Your task to perform on an android device: Open display settings Image 0: 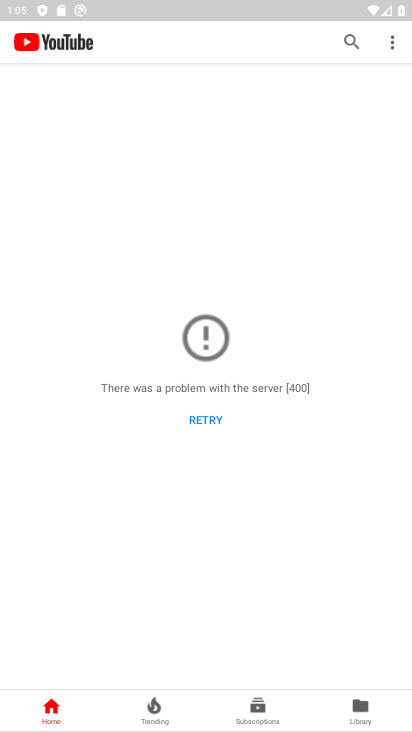
Step 0: press home button
Your task to perform on an android device: Open display settings Image 1: 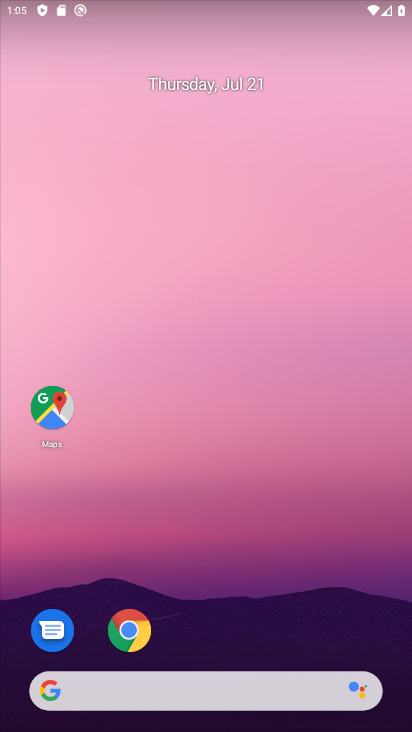
Step 1: drag from (292, 634) to (243, 258)
Your task to perform on an android device: Open display settings Image 2: 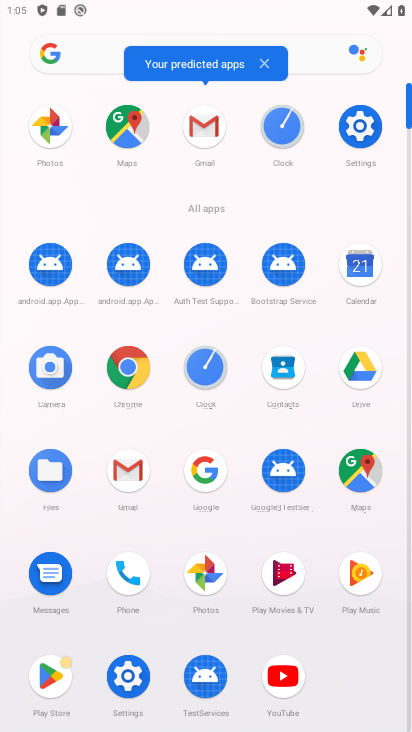
Step 2: click (356, 138)
Your task to perform on an android device: Open display settings Image 3: 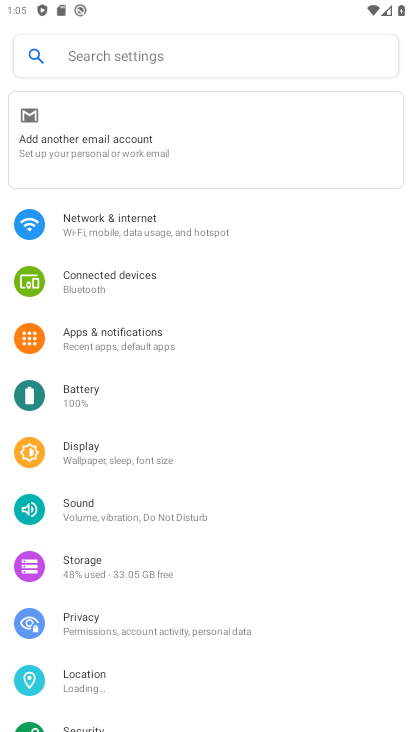
Step 3: click (126, 457)
Your task to perform on an android device: Open display settings Image 4: 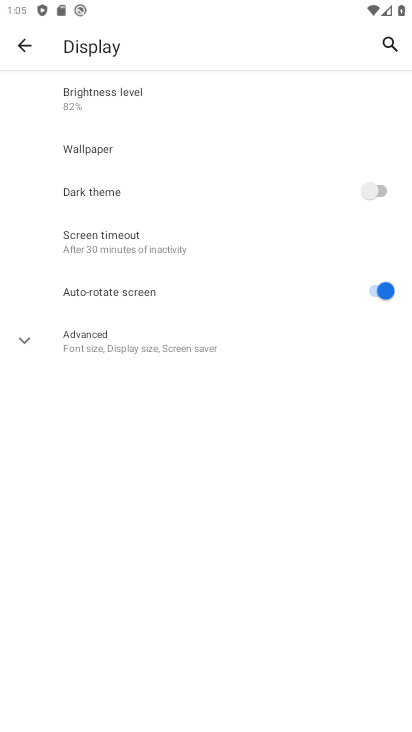
Step 4: task complete